Your task to perform on an android device: see tabs open on other devices in the chrome app Image 0: 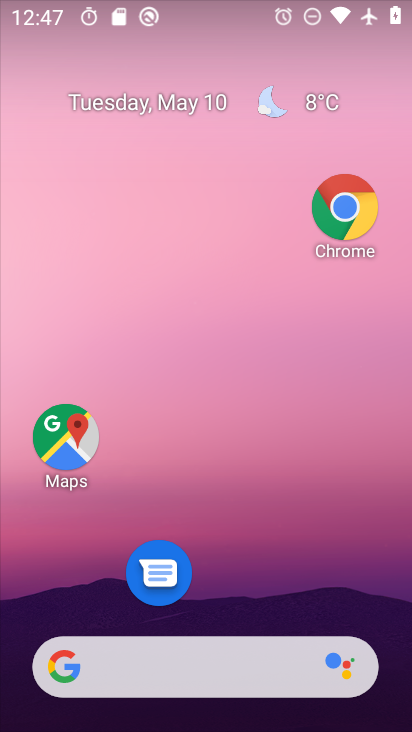
Step 0: click (343, 208)
Your task to perform on an android device: see tabs open on other devices in the chrome app Image 1: 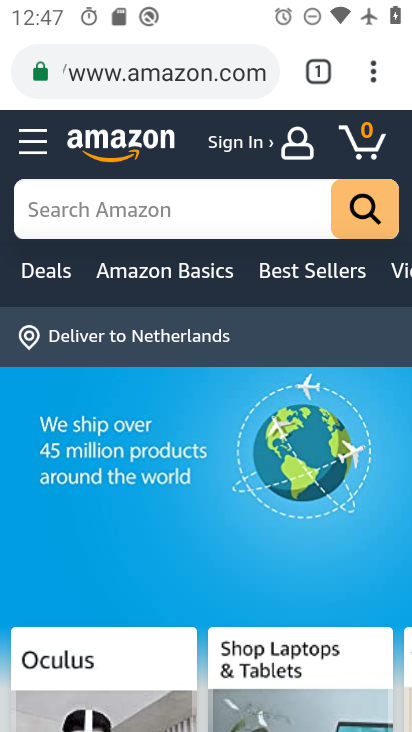
Step 1: task complete